Your task to perform on an android device: Open the calendar app, open the side menu, and click the "Day" option Image 0: 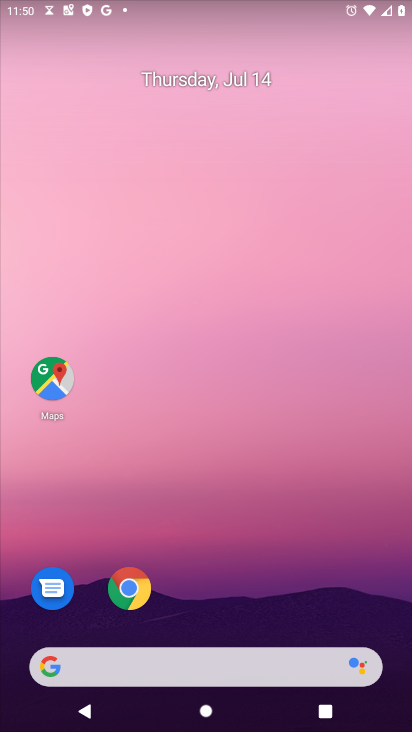
Step 0: press home button
Your task to perform on an android device: Open the calendar app, open the side menu, and click the "Day" option Image 1: 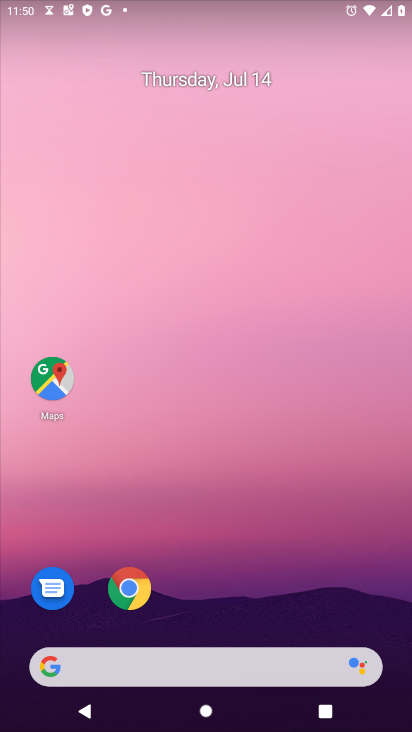
Step 1: drag from (174, 643) to (211, 145)
Your task to perform on an android device: Open the calendar app, open the side menu, and click the "Day" option Image 2: 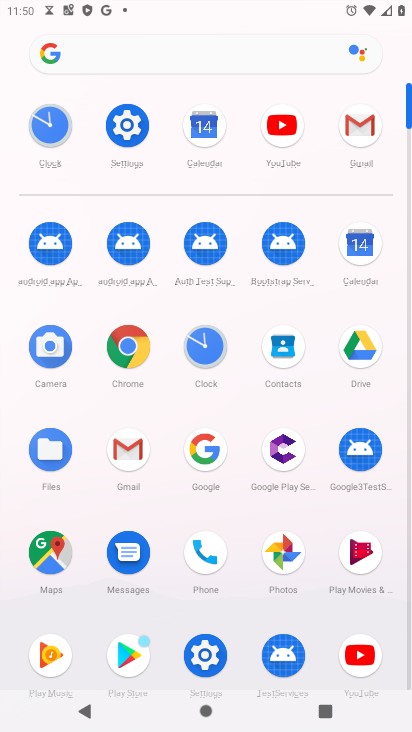
Step 2: click (197, 127)
Your task to perform on an android device: Open the calendar app, open the side menu, and click the "Day" option Image 3: 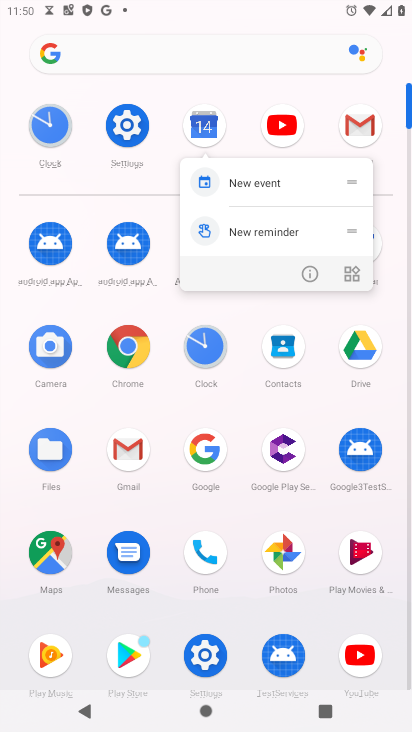
Step 3: click (197, 125)
Your task to perform on an android device: Open the calendar app, open the side menu, and click the "Day" option Image 4: 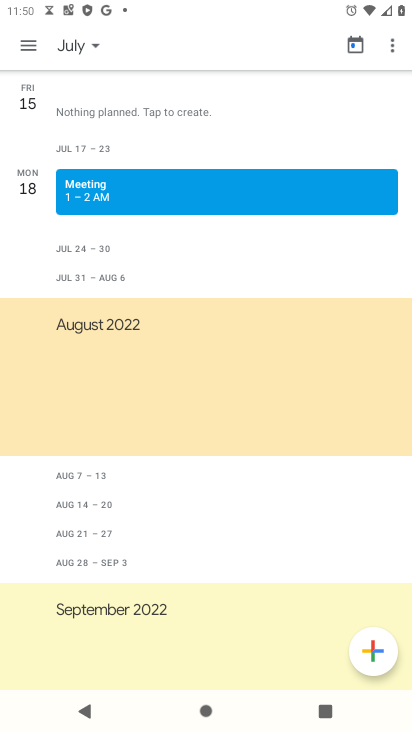
Step 4: click (73, 48)
Your task to perform on an android device: Open the calendar app, open the side menu, and click the "Day" option Image 5: 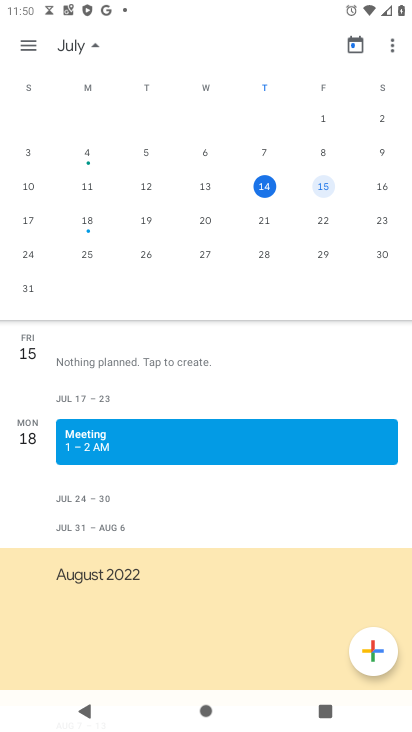
Step 5: click (272, 190)
Your task to perform on an android device: Open the calendar app, open the side menu, and click the "Day" option Image 6: 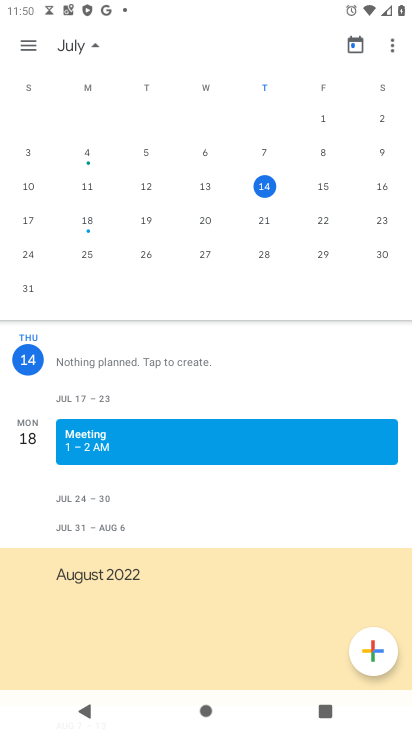
Step 6: click (24, 44)
Your task to perform on an android device: Open the calendar app, open the side menu, and click the "Day" option Image 7: 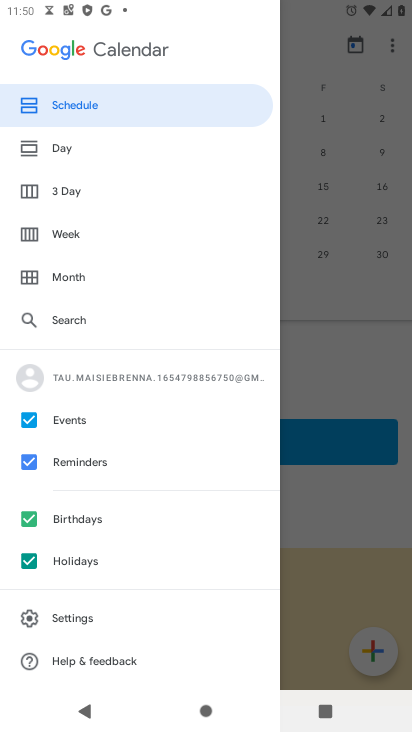
Step 7: click (53, 148)
Your task to perform on an android device: Open the calendar app, open the side menu, and click the "Day" option Image 8: 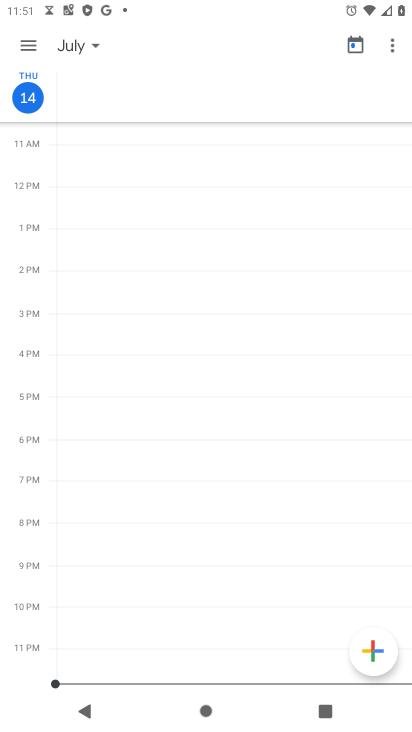
Step 8: task complete